Your task to perform on an android device: toggle data saver in the chrome app Image 0: 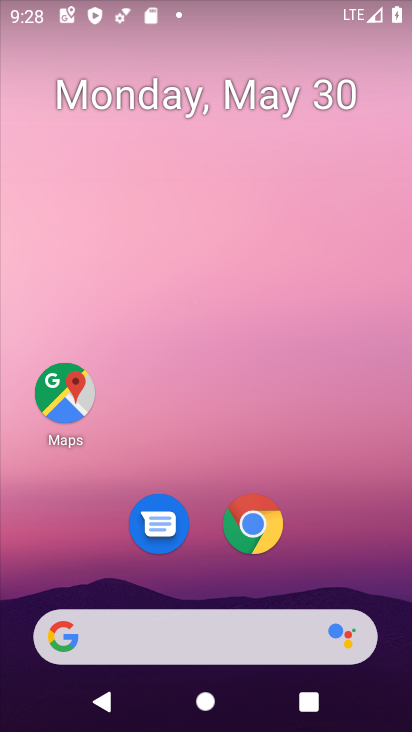
Step 0: click (263, 521)
Your task to perform on an android device: toggle data saver in the chrome app Image 1: 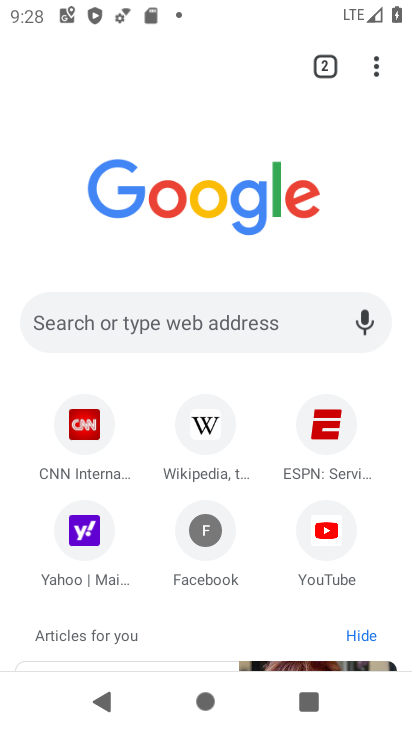
Step 1: click (369, 63)
Your task to perform on an android device: toggle data saver in the chrome app Image 2: 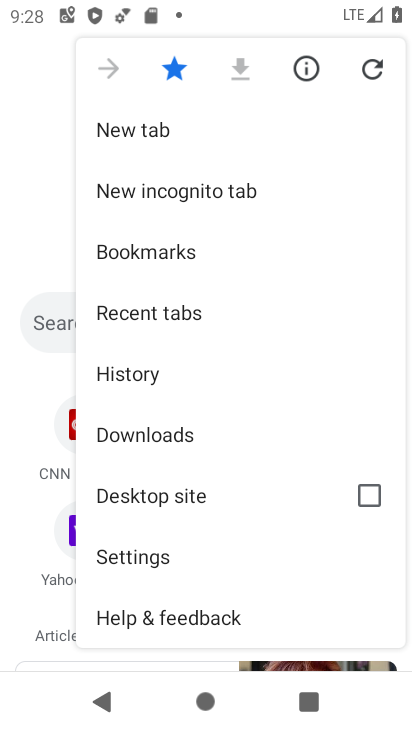
Step 2: click (205, 555)
Your task to perform on an android device: toggle data saver in the chrome app Image 3: 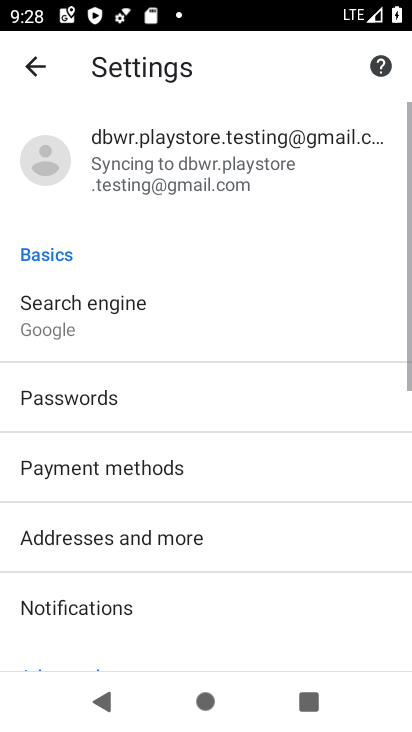
Step 3: drag from (268, 494) to (297, 0)
Your task to perform on an android device: toggle data saver in the chrome app Image 4: 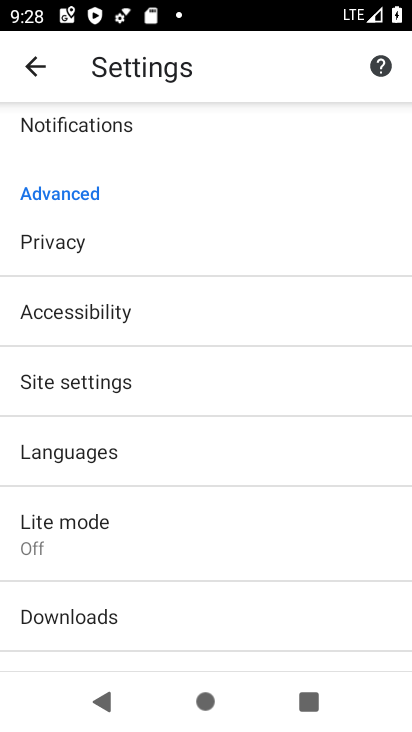
Step 4: click (174, 541)
Your task to perform on an android device: toggle data saver in the chrome app Image 5: 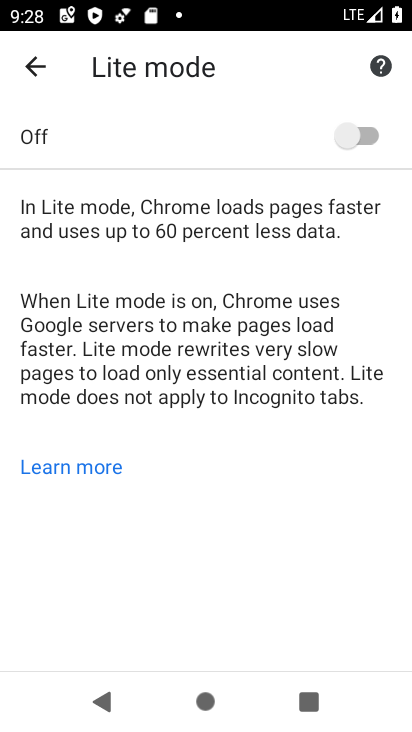
Step 5: click (361, 131)
Your task to perform on an android device: toggle data saver in the chrome app Image 6: 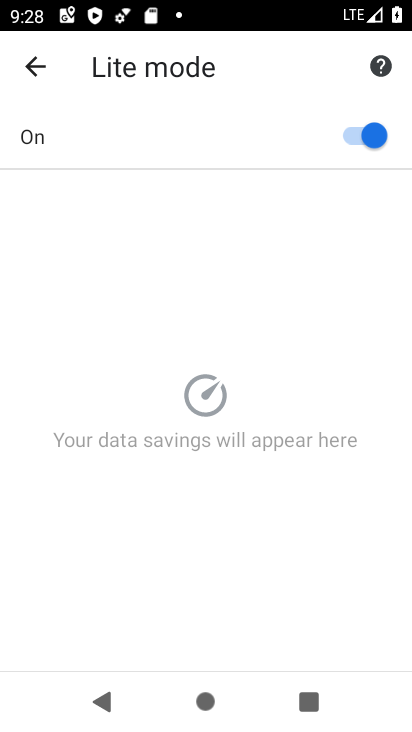
Step 6: task complete